Your task to perform on an android device: delete location history Image 0: 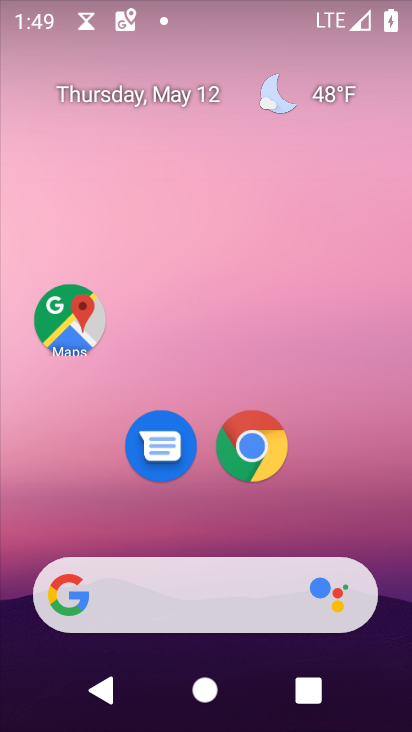
Step 0: drag from (330, 515) to (311, 62)
Your task to perform on an android device: delete location history Image 1: 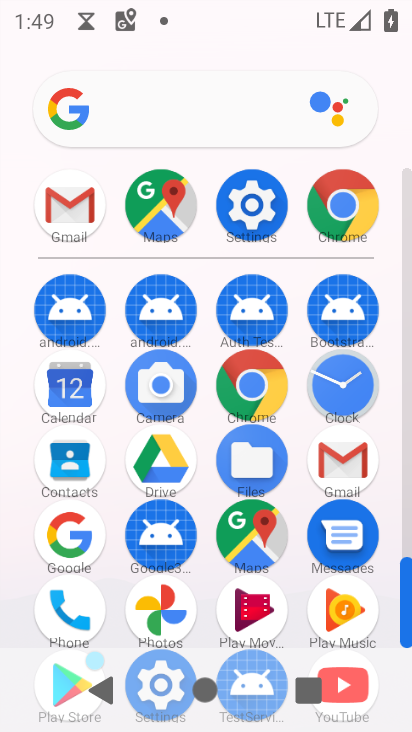
Step 1: click (250, 205)
Your task to perform on an android device: delete location history Image 2: 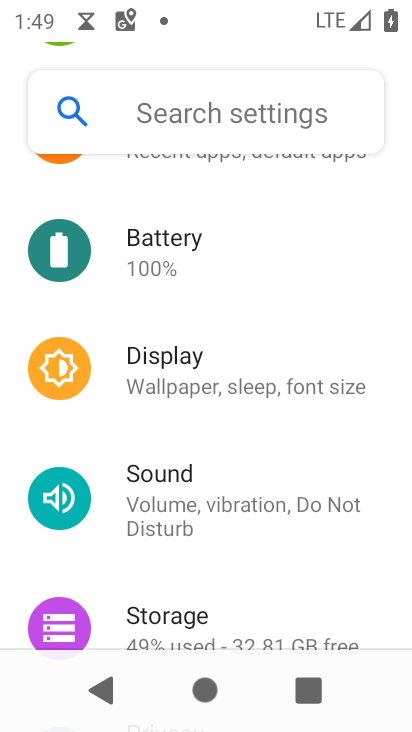
Step 2: drag from (266, 569) to (259, 220)
Your task to perform on an android device: delete location history Image 3: 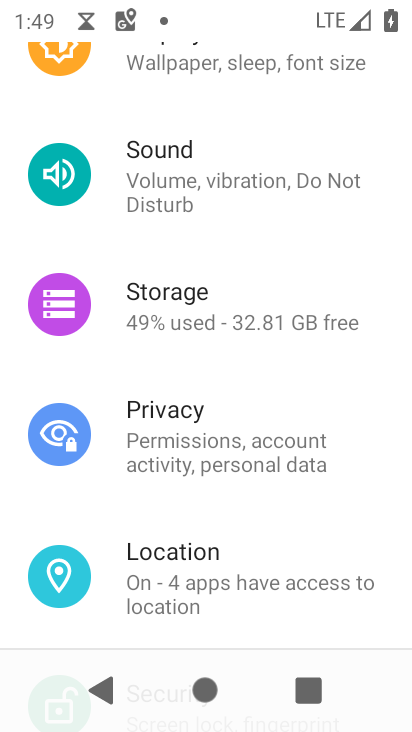
Step 3: click (217, 567)
Your task to perform on an android device: delete location history Image 4: 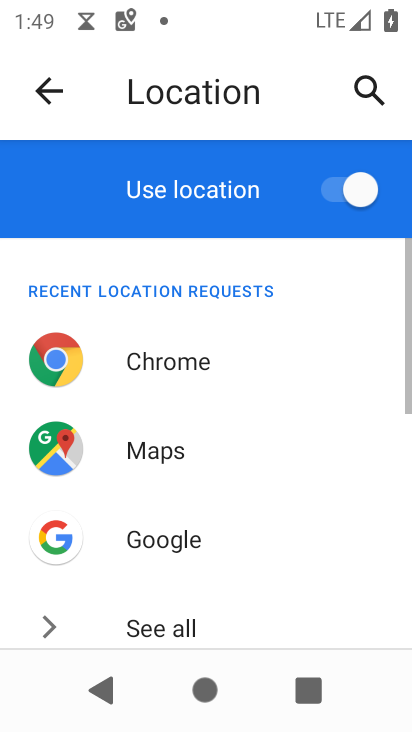
Step 4: drag from (220, 516) to (227, 134)
Your task to perform on an android device: delete location history Image 5: 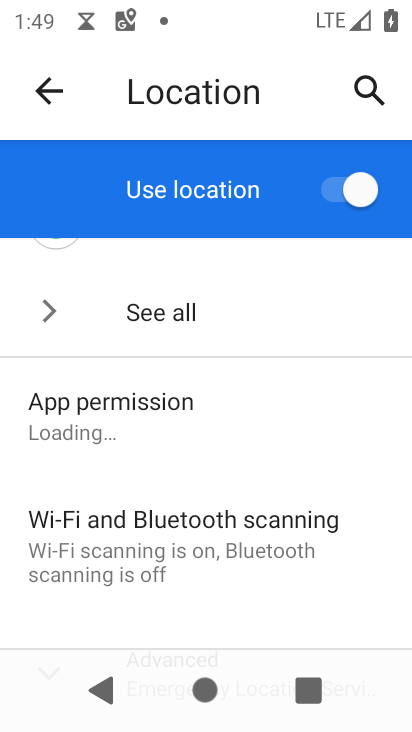
Step 5: drag from (202, 577) to (230, 341)
Your task to perform on an android device: delete location history Image 6: 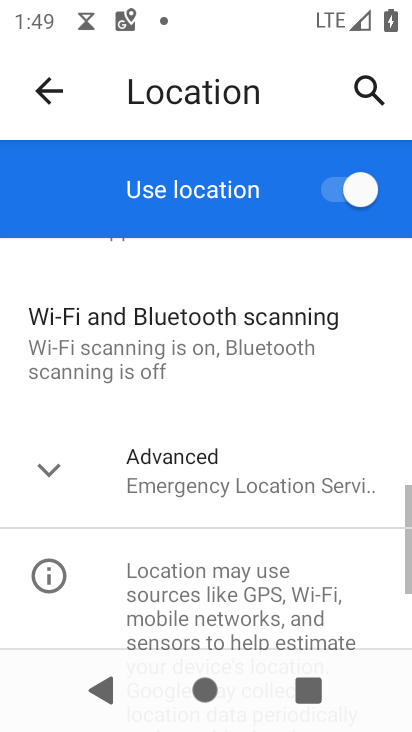
Step 6: click (243, 484)
Your task to perform on an android device: delete location history Image 7: 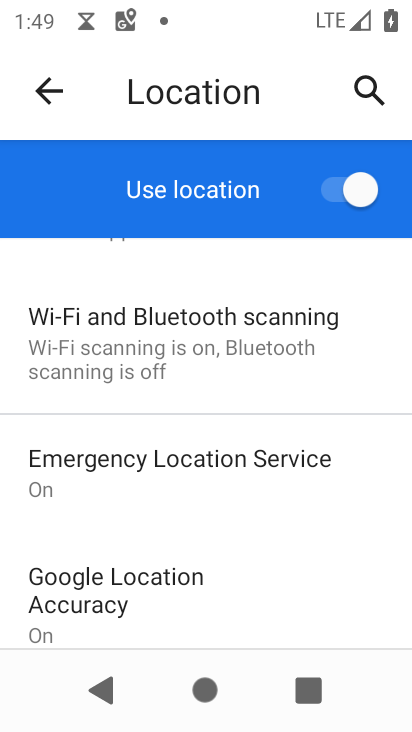
Step 7: drag from (253, 577) to (320, 258)
Your task to perform on an android device: delete location history Image 8: 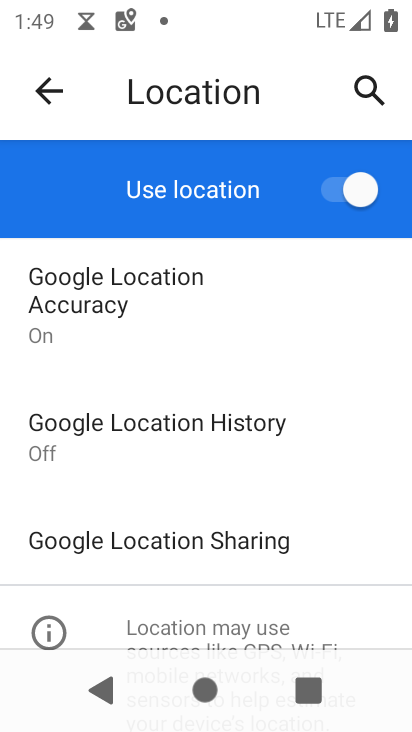
Step 8: click (231, 428)
Your task to perform on an android device: delete location history Image 9: 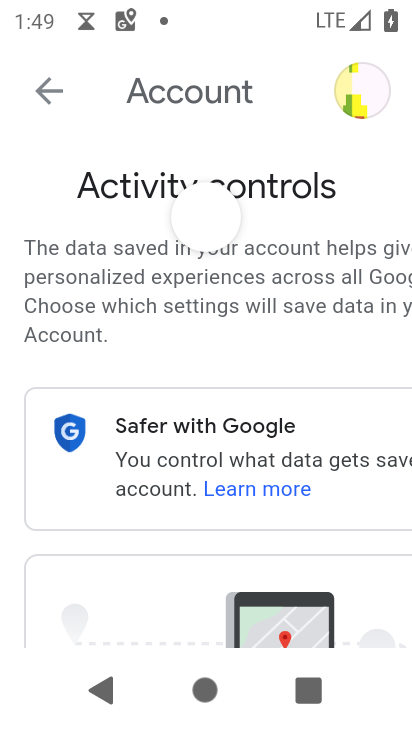
Step 9: drag from (269, 527) to (267, 157)
Your task to perform on an android device: delete location history Image 10: 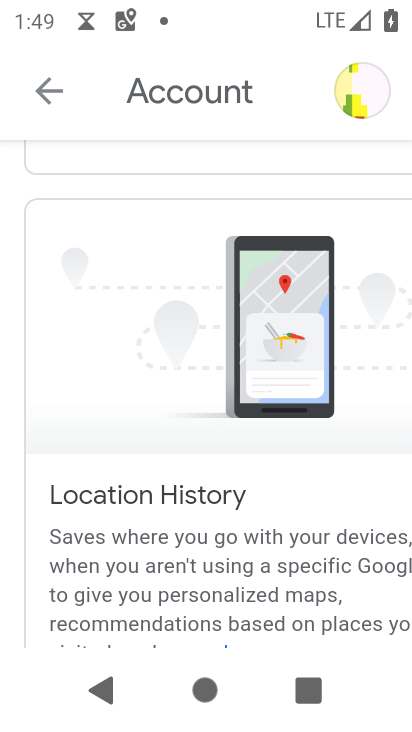
Step 10: drag from (263, 524) to (271, 157)
Your task to perform on an android device: delete location history Image 11: 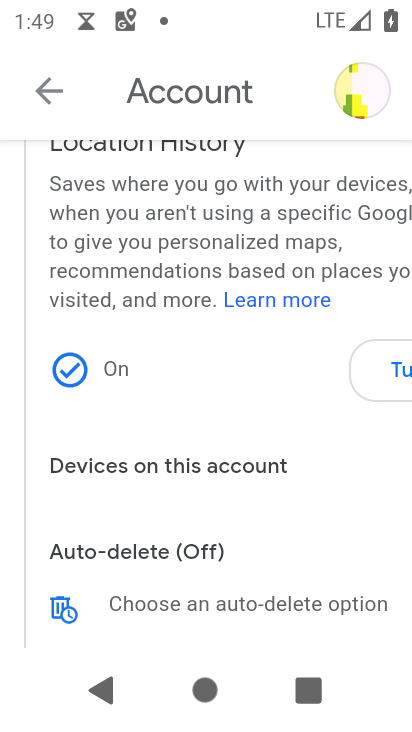
Step 11: drag from (258, 564) to (244, 240)
Your task to perform on an android device: delete location history Image 12: 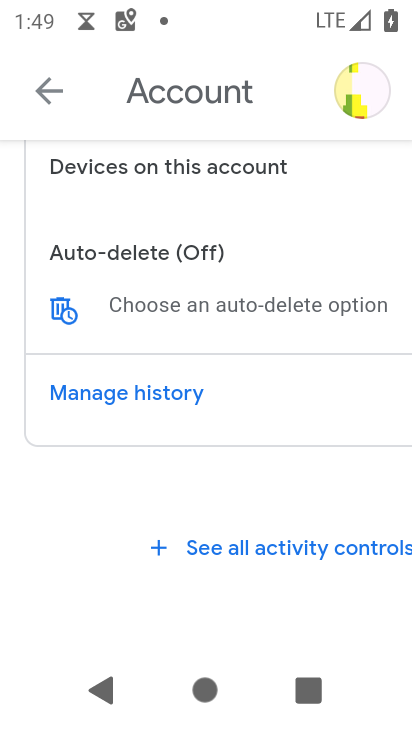
Step 12: click (173, 387)
Your task to perform on an android device: delete location history Image 13: 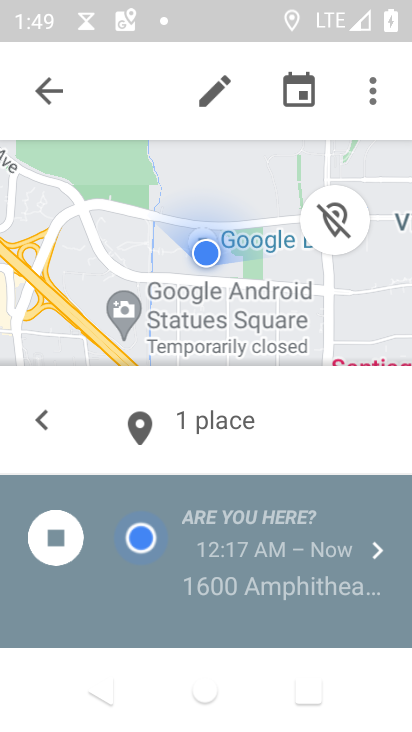
Step 13: click (380, 92)
Your task to perform on an android device: delete location history Image 14: 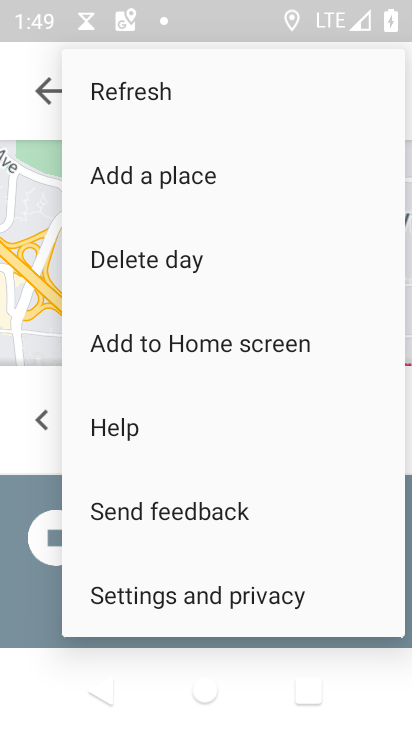
Step 14: click (208, 585)
Your task to perform on an android device: delete location history Image 15: 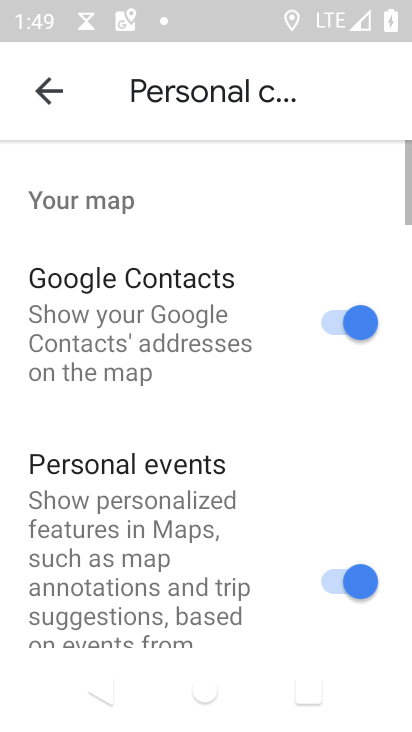
Step 15: drag from (215, 551) to (211, 177)
Your task to perform on an android device: delete location history Image 16: 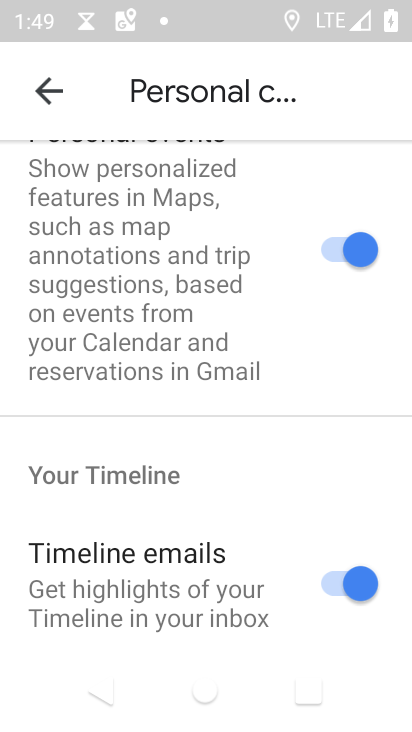
Step 16: drag from (163, 564) to (226, 136)
Your task to perform on an android device: delete location history Image 17: 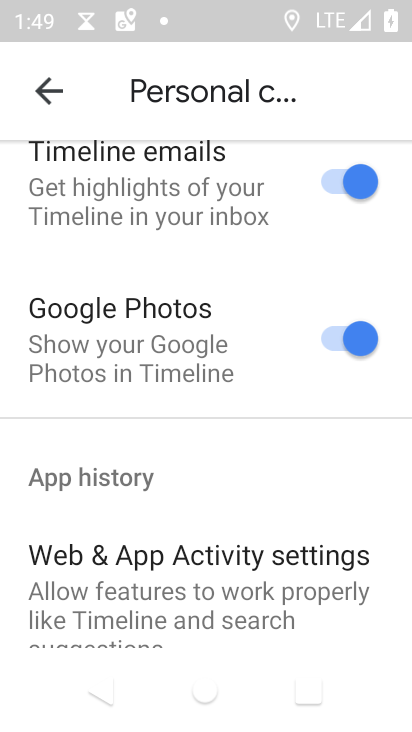
Step 17: drag from (188, 583) to (250, 164)
Your task to perform on an android device: delete location history Image 18: 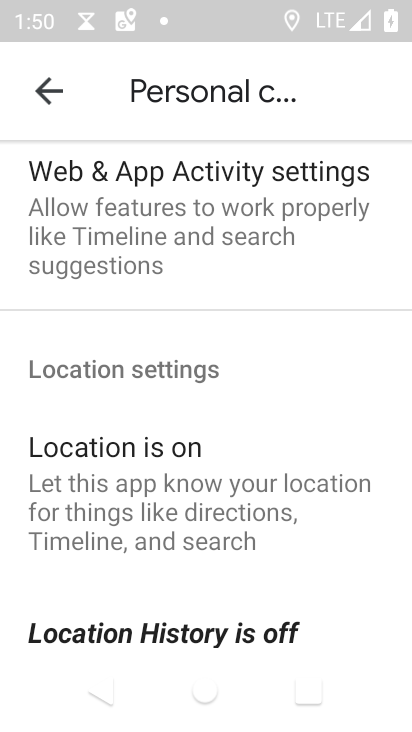
Step 18: drag from (210, 537) to (241, 158)
Your task to perform on an android device: delete location history Image 19: 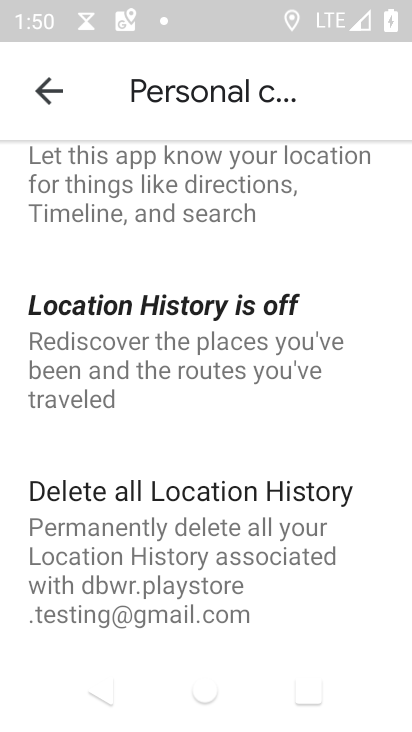
Step 19: click (193, 510)
Your task to perform on an android device: delete location history Image 20: 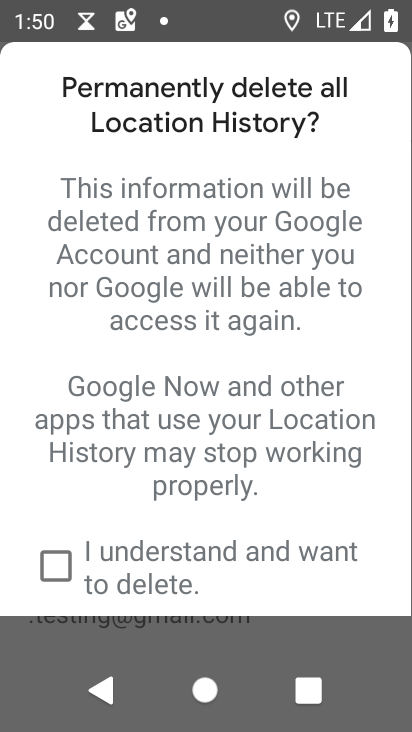
Step 20: click (52, 559)
Your task to perform on an android device: delete location history Image 21: 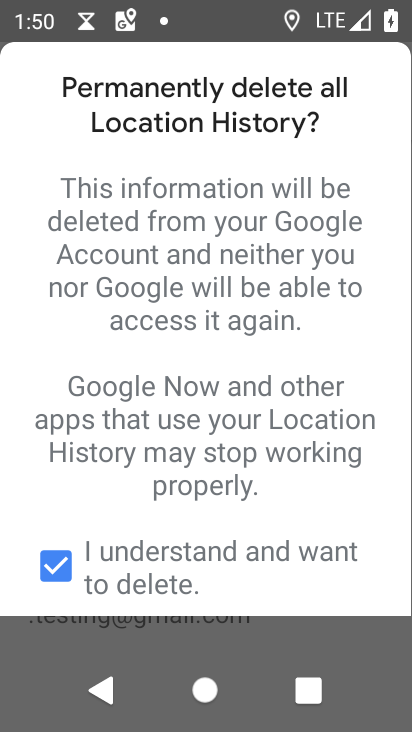
Step 21: drag from (185, 562) to (199, 223)
Your task to perform on an android device: delete location history Image 22: 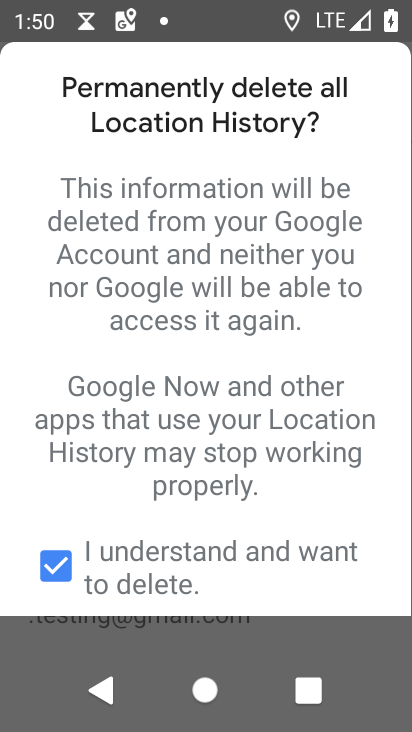
Step 22: drag from (244, 494) to (293, 183)
Your task to perform on an android device: delete location history Image 23: 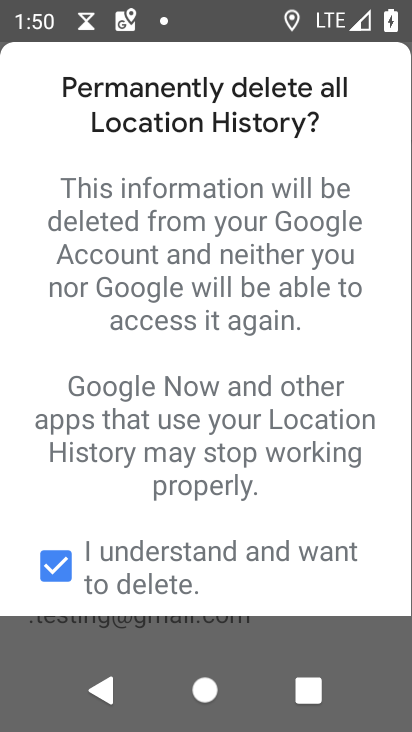
Step 23: drag from (339, 493) to (52, 479)
Your task to perform on an android device: delete location history Image 24: 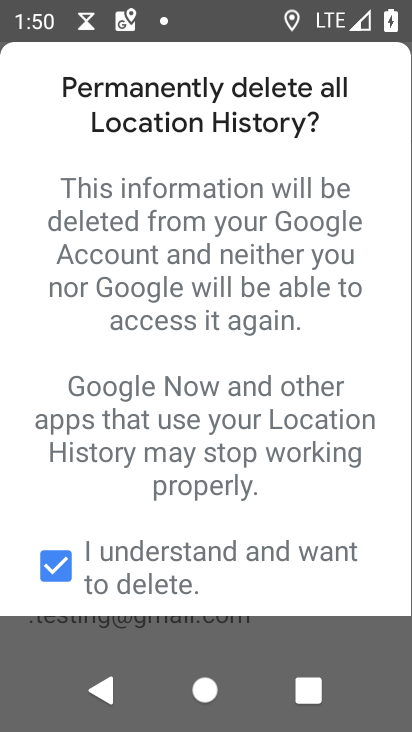
Step 24: drag from (225, 510) to (165, 132)
Your task to perform on an android device: delete location history Image 25: 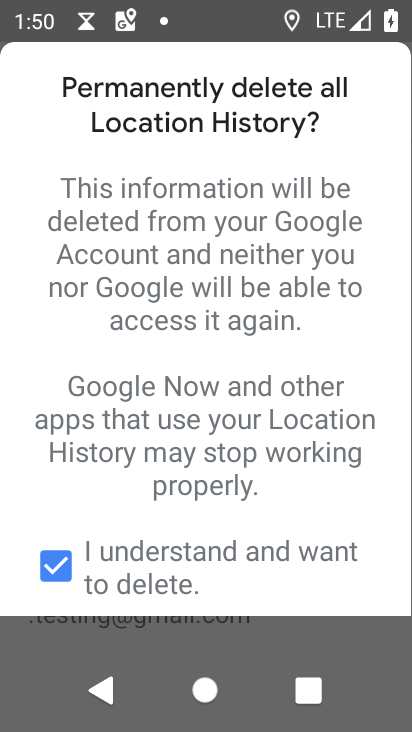
Step 25: drag from (275, 528) to (263, 168)
Your task to perform on an android device: delete location history Image 26: 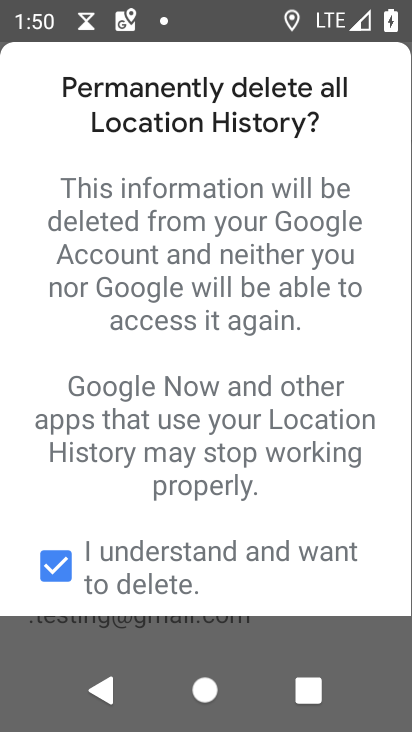
Step 26: drag from (353, 493) to (75, 371)
Your task to perform on an android device: delete location history Image 27: 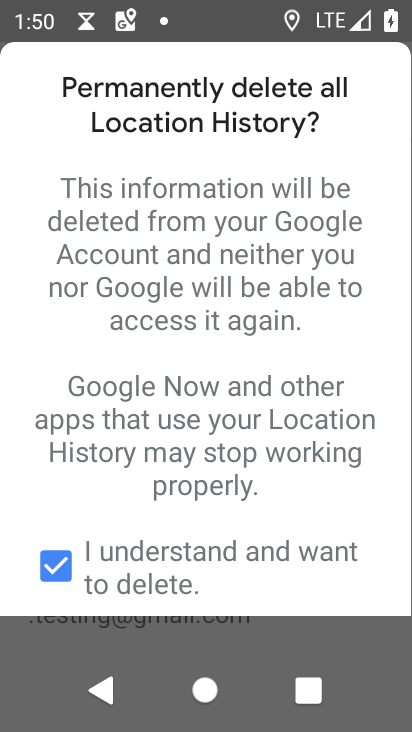
Step 27: drag from (204, 522) to (219, 76)
Your task to perform on an android device: delete location history Image 28: 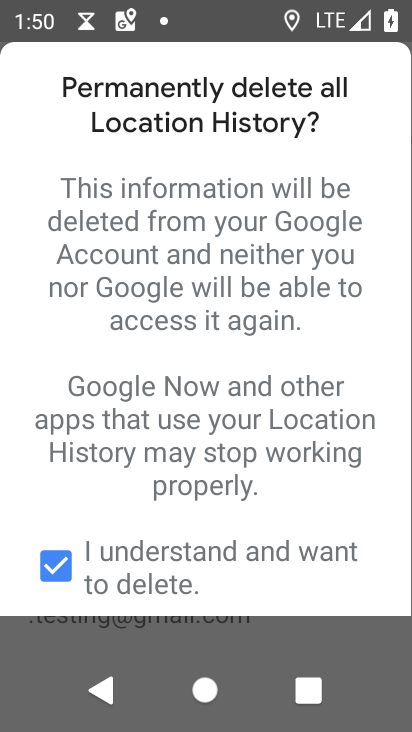
Step 28: drag from (280, 491) to (269, 146)
Your task to perform on an android device: delete location history Image 29: 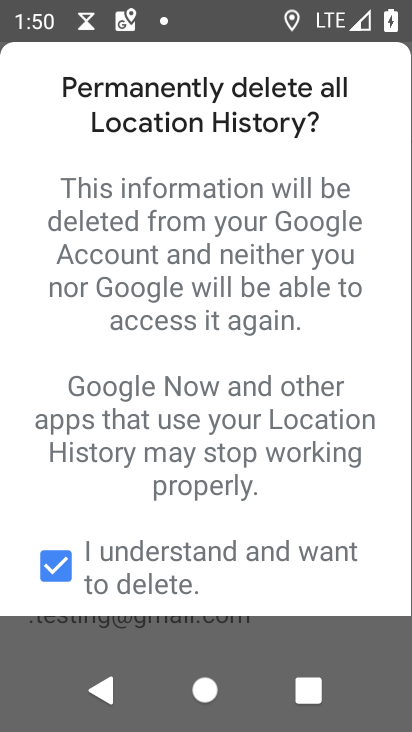
Step 29: click (362, 579)
Your task to perform on an android device: delete location history Image 30: 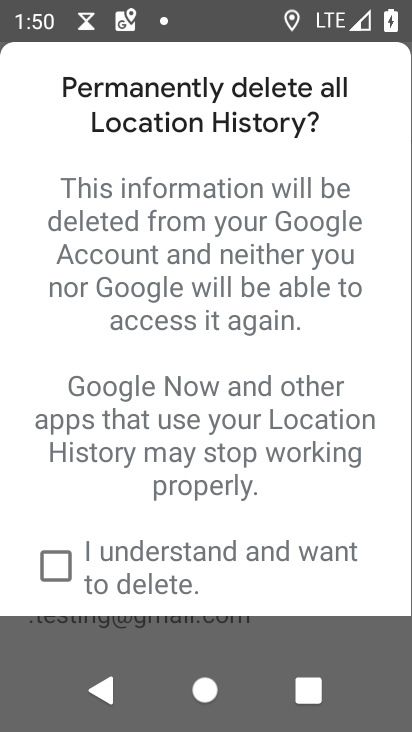
Step 30: drag from (357, 564) to (273, 213)
Your task to perform on an android device: delete location history Image 31: 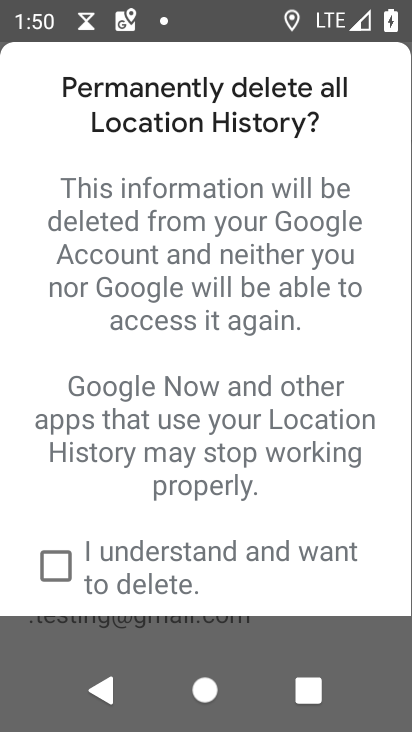
Step 31: click (64, 562)
Your task to perform on an android device: delete location history Image 32: 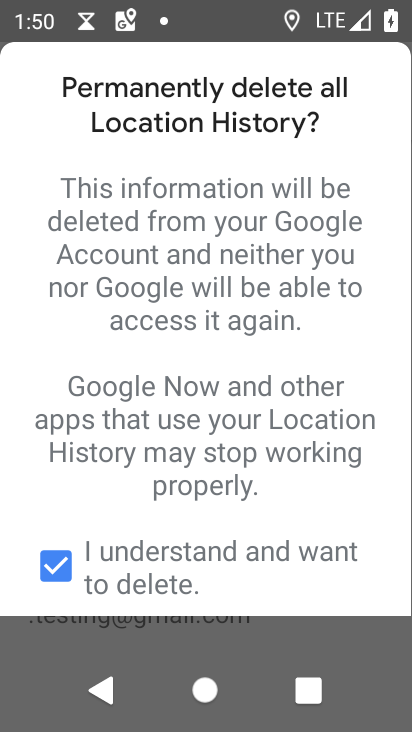
Step 32: task complete